Your task to perform on an android device: Go to Android settings Image 0: 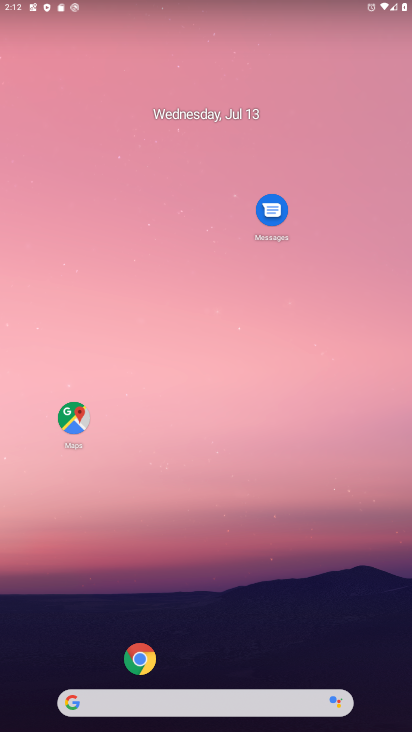
Step 0: drag from (129, 518) to (409, 65)
Your task to perform on an android device: Go to Android settings Image 1: 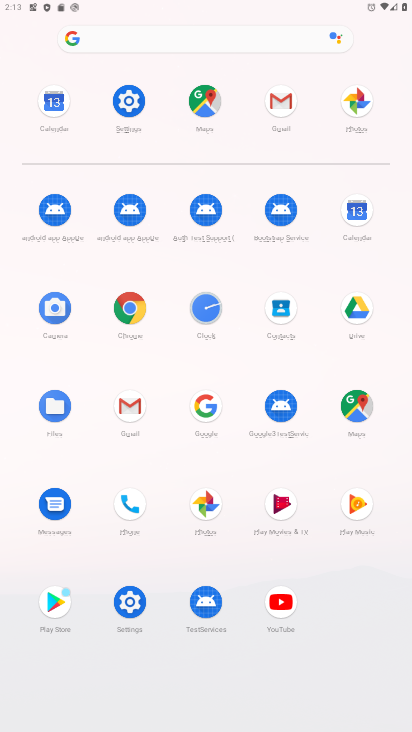
Step 1: click (147, 613)
Your task to perform on an android device: Go to Android settings Image 2: 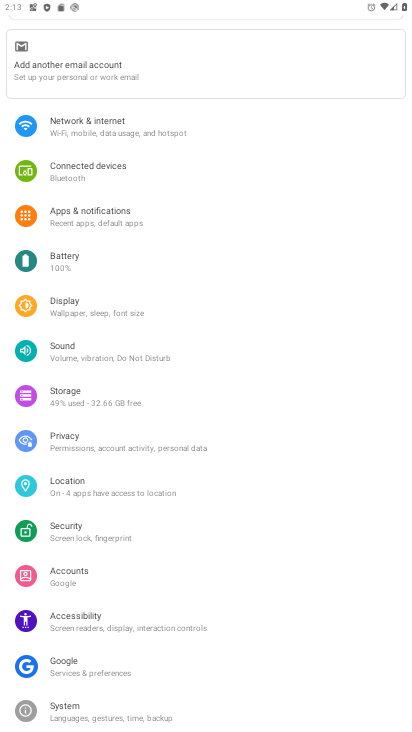
Step 2: drag from (249, 615) to (302, 358)
Your task to perform on an android device: Go to Android settings Image 3: 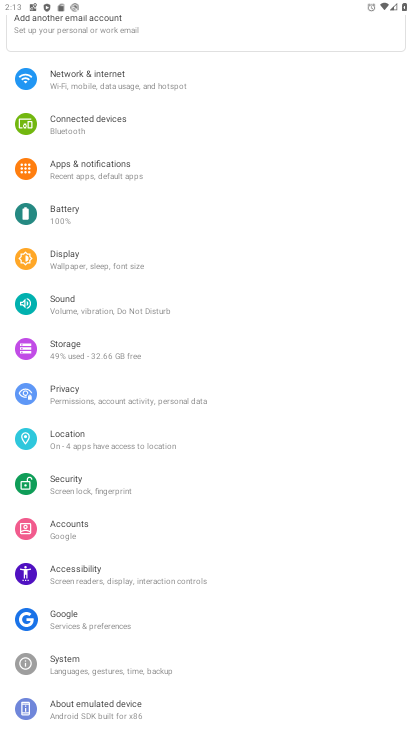
Step 3: click (132, 707)
Your task to perform on an android device: Go to Android settings Image 4: 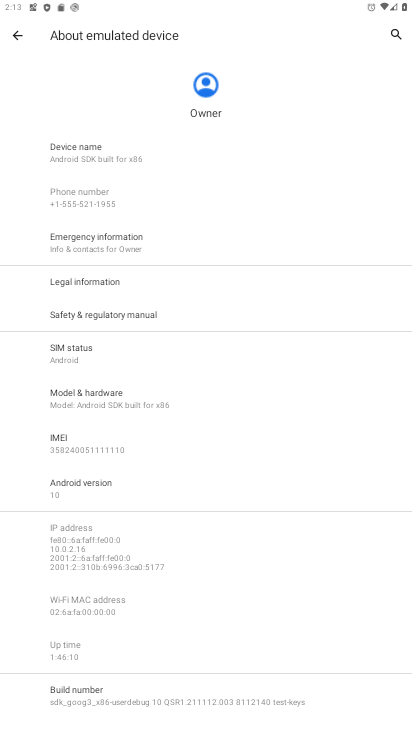
Step 4: click (102, 487)
Your task to perform on an android device: Go to Android settings Image 5: 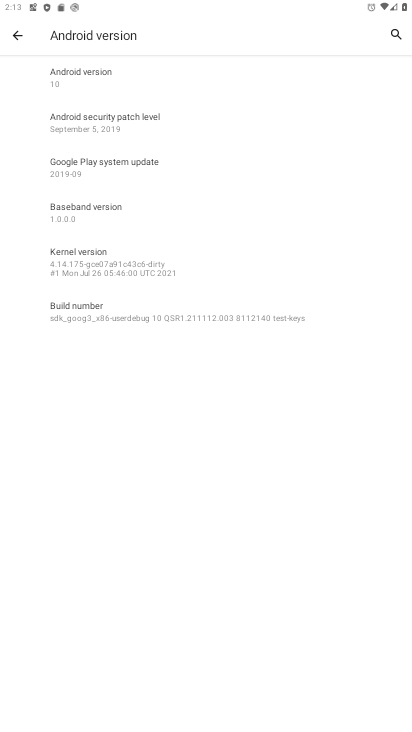
Step 5: task complete